Your task to perform on an android device: turn on the 24-hour format for clock Image 0: 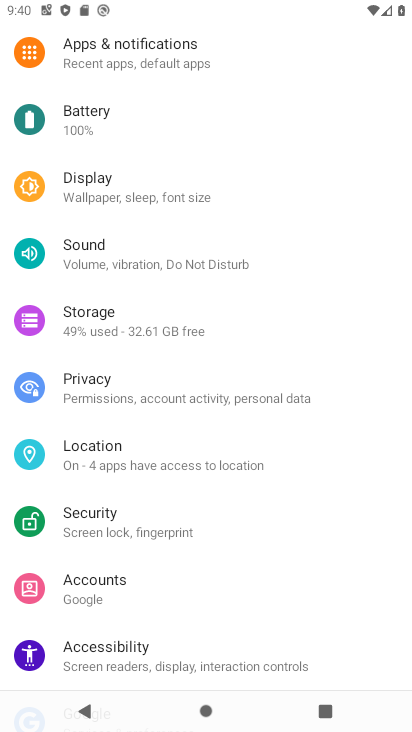
Step 0: press home button
Your task to perform on an android device: turn on the 24-hour format for clock Image 1: 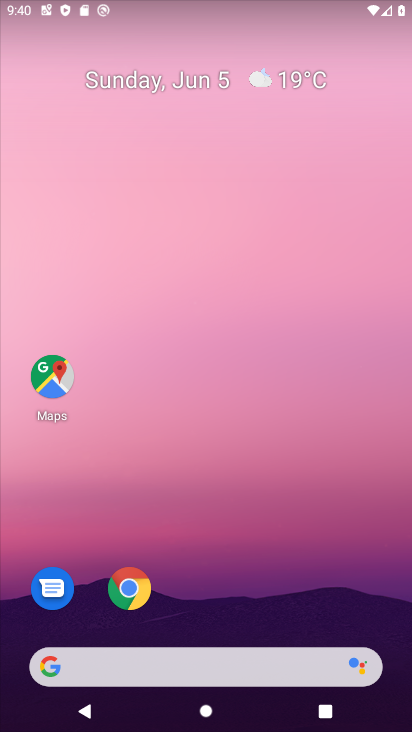
Step 1: drag from (338, 548) to (368, 141)
Your task to perform on an android device: turn on the 24-hour format for clock Image 2: 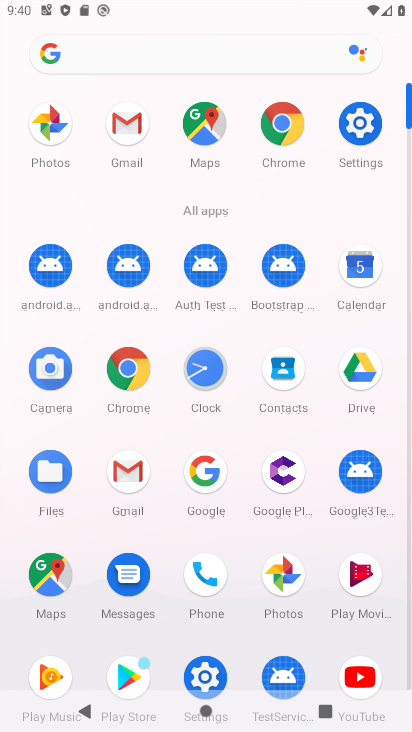
Step 2: click (208, 380)
Your task to perform on an android device: turn on the 24-hour format for clock Image 3: 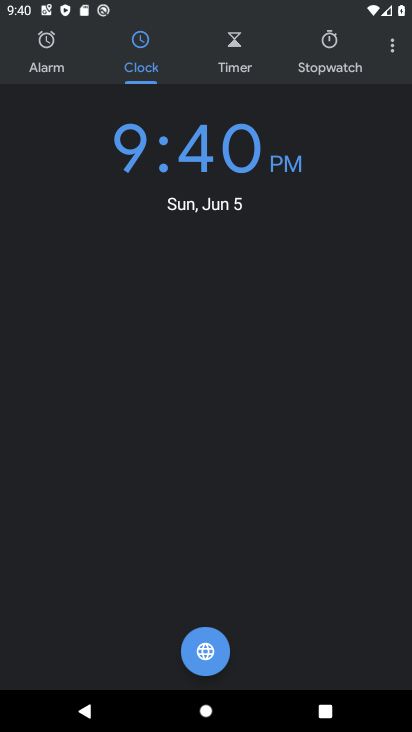
Step 3: click (390, 53)
Your task to perform on an android device: turn on the 24-hour format for clock Image 4: 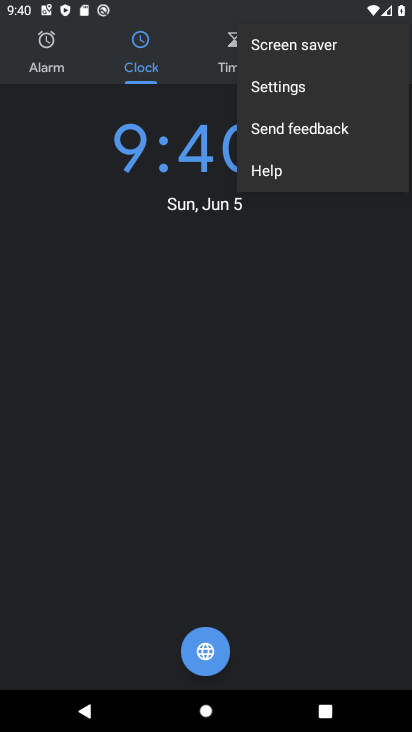
Step 4: click (266, 89)
Your task to perform on an android device: turn on the 24-hour format for clock Image 5: 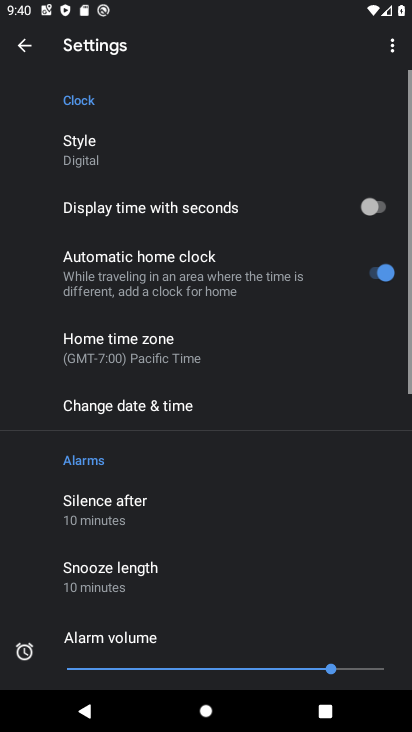
Step 5: drag from (292, 437) to (306, 309)
Your task to perform on an android device: turn on the 24-hour format for clock Image 6: 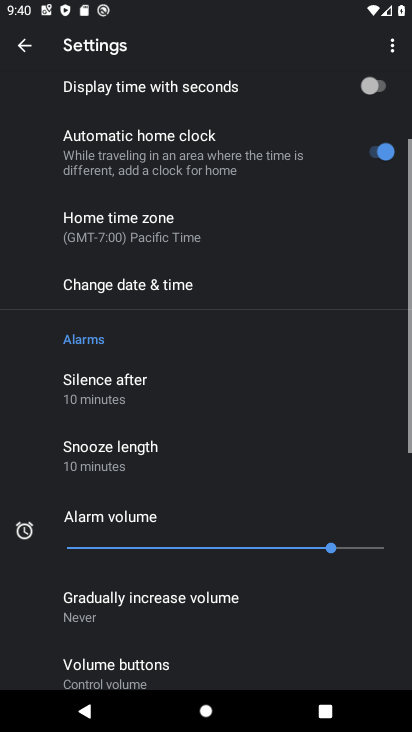
Step 6: drag from (294, 482) to (319, 305)
Your task to perform on an android device: turn on the 24-hour format for clock Image 7: 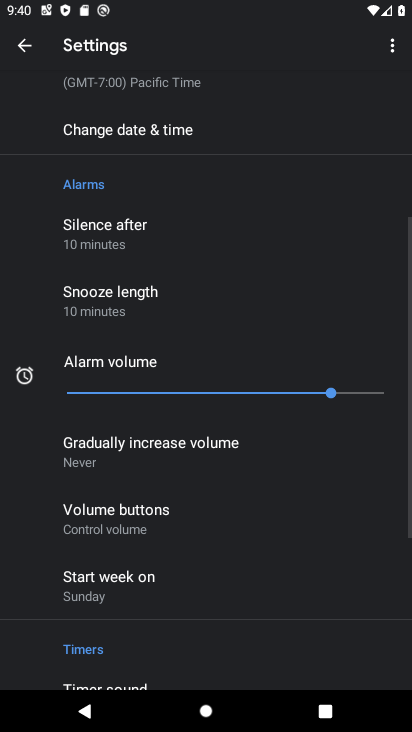
Step 7: drag from (315, 478) to (315, 350)
Your task to perform on an android device: turn on the 24-hour format for clock Image 8: 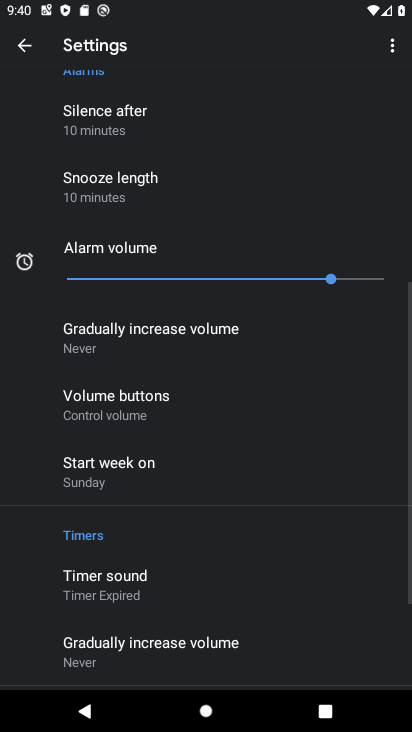
Step 8: drag from (317, 502) to (332, 340)
Your task to perform on an android device: turn on the 24-hour format for clock Image 9: 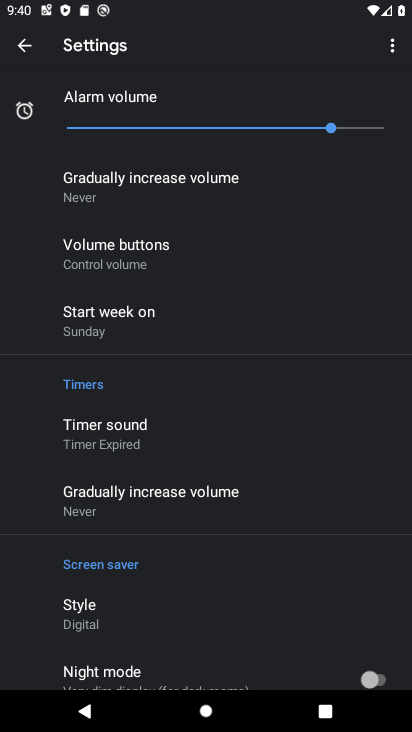
Step 9: drag from (319, 512) to (315, 313)
Your task to perform on an android device: turn on the 24-hour format for clock Image 10: 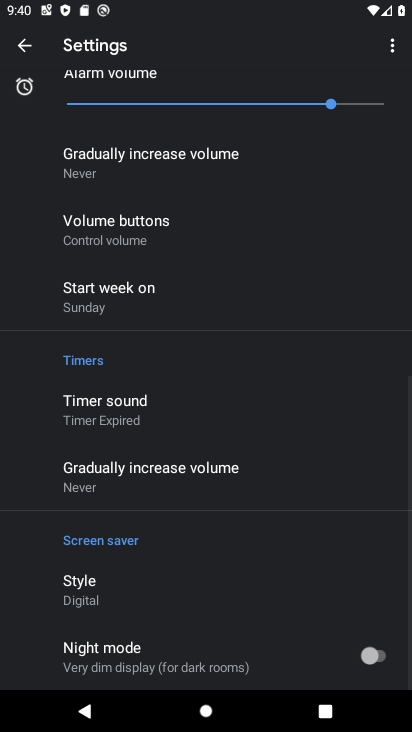
Step 10: drag from (319, 239) to (306, 344)
Your task to perform on an android device: turn on the 24-hour format for clock Image 11: 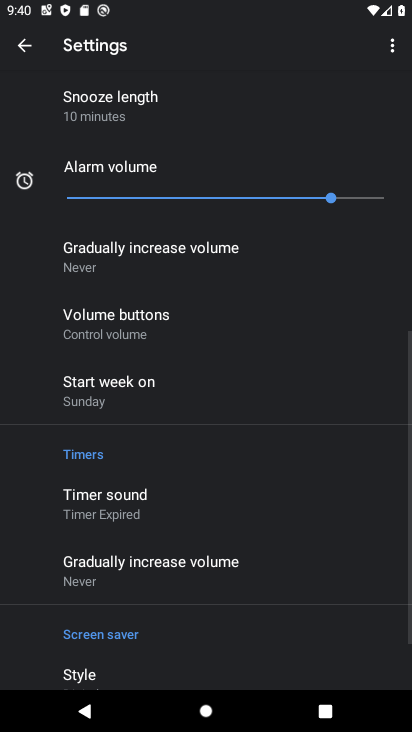
Step 11: drag from (303, 263) to (303, 399)
Your task to perform on an android device: turn on the 24-hour format for clock Image 12: 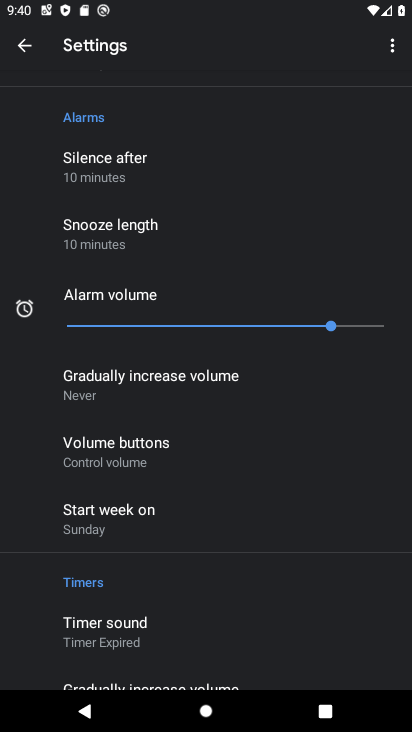
Step 12: drag from (303, 188) to (299, 336)
Your task to perform on an android device: turn on the 24-hour format for clock Image 13: 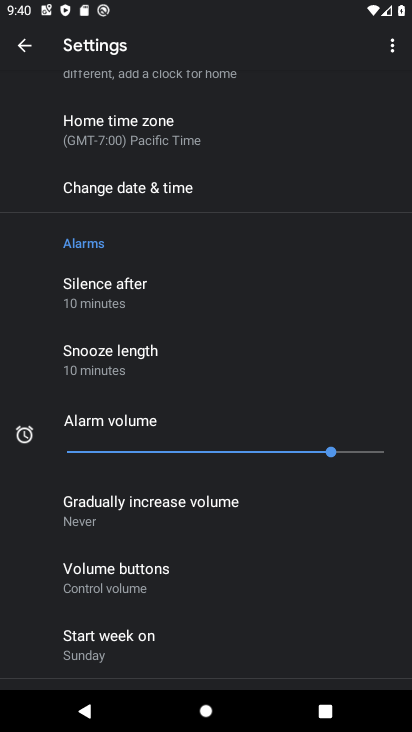
Step 13: drag from (298, 176) to (276, 320)
Your task to perform on an android device: turn on the 24-hour format for clock Image 14: 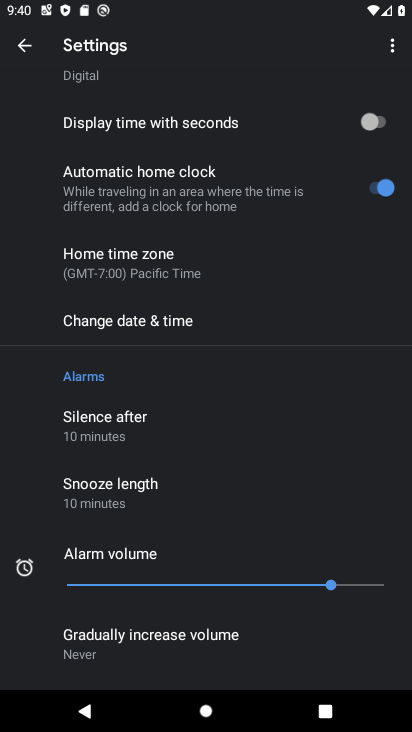
Step 14: drag from (297, 129) to (302, 329)
Your task to perform on an android device: turn on the 24-hour format for clock Image 15: 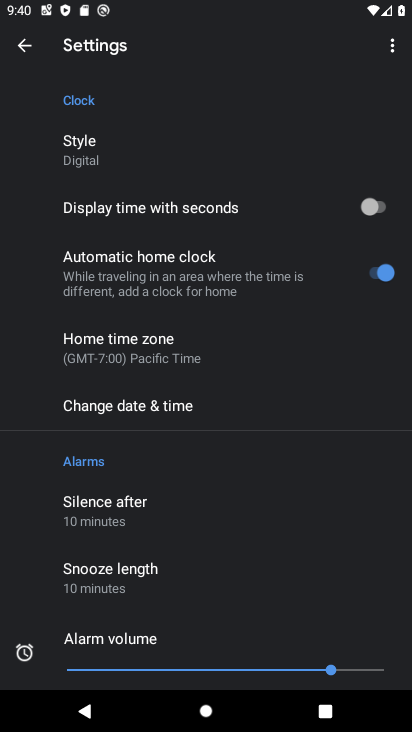
Step 15: click (208, 420)
Your task to perform on an android device: turn on the 24-hour format for clock Image 16: 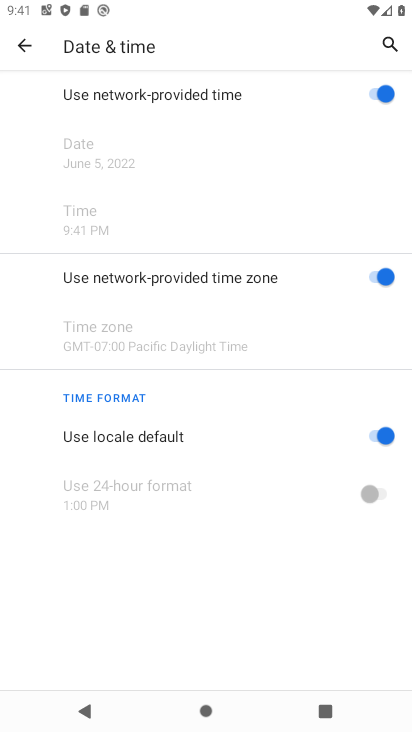
Step 16: click (389, 432)
Your task to perform on an android device: turn on the 24-hour format for clock Image 17: 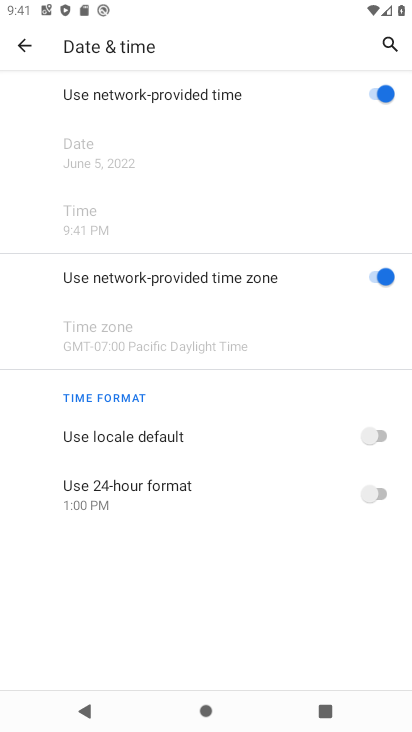
Step 17: click (366, 497)
Your task to perform on an android device: turn on the 24-hour format for clock Image 18: 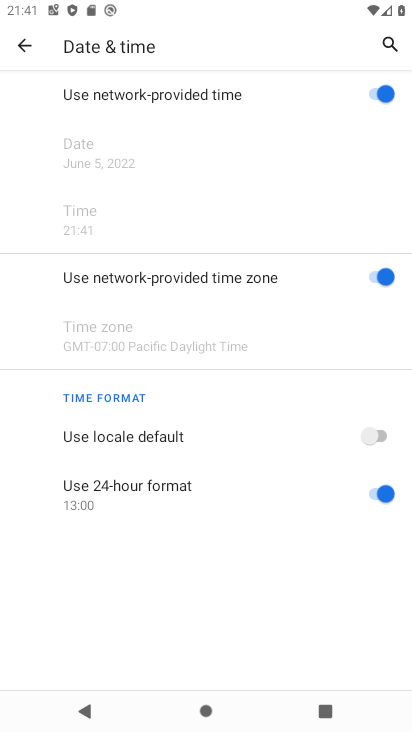
Step 18: task complete